Your task to perform on an android device: move a message to another label in the gmail app Image 0: 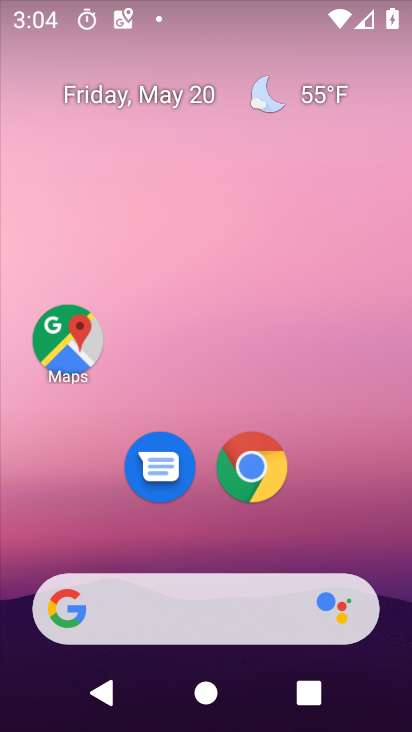
Step 0: drag from (212, 561) to (112, 0)
Your task to perform on an android device: move a message to another label in the gmail app Image 1: 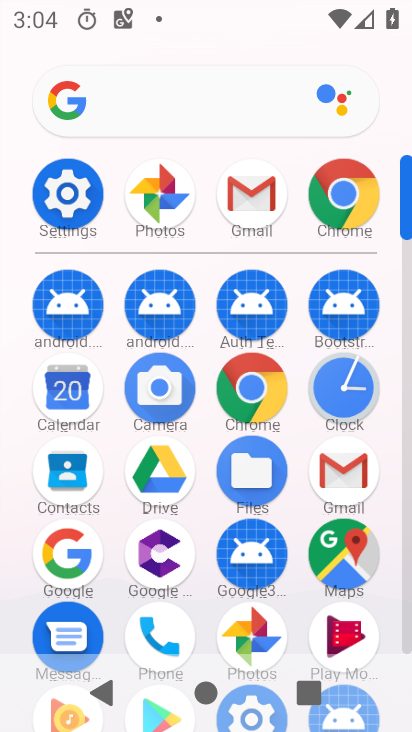
Step 1: click (341, 470)
Your task to perform on an android device: move a message to another label in the gmail app Image 2: 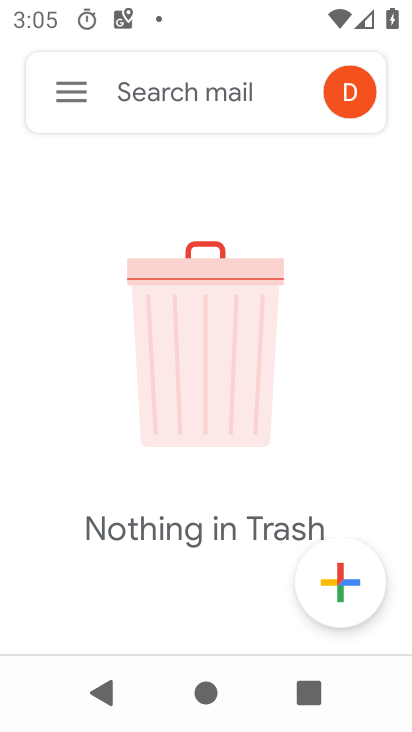
Step 2: click (41, 87)
Your task to perform on an android device: move a message to another label in the gmail app Image 3: 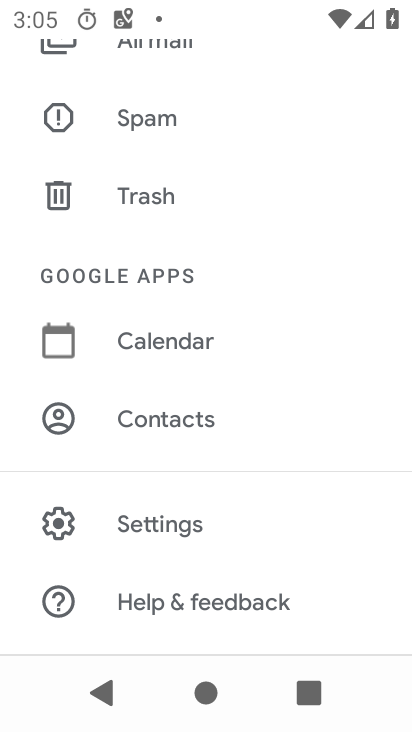
Step 3: drag from (174, 193) to (195, 451)
Your task to perform on an android device: move a message to another label in the gmail app Image 4: 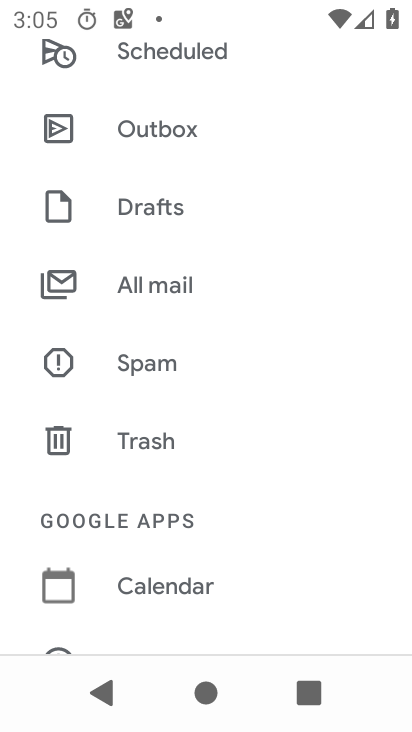
Step 4: click (142, 277)
Your task to perform on an android device: move a message to another label in the gmail app Image 5: 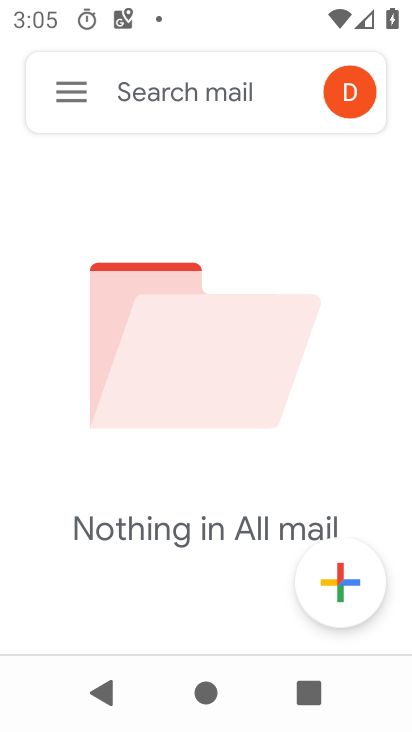
Step 5: task complete